Your task to perform on an android device: Open wifi settings Image 0: 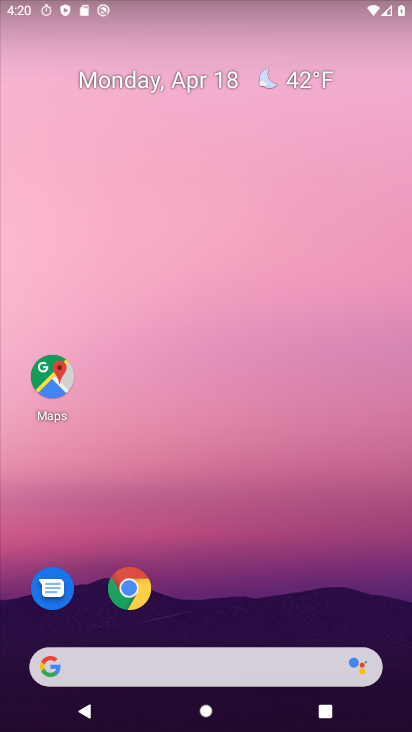
Step 0: drag from (318, 5) to (351, 537)
Your task to perform on an android device: Open wifi settings Image 1: 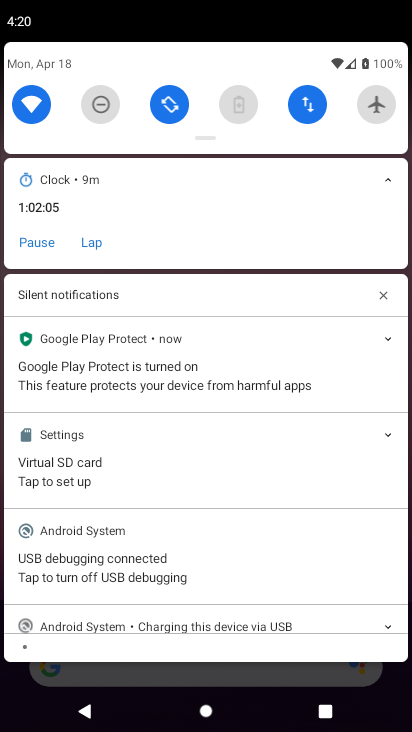
Step 1: click (33, 113)
Your task to perform on an android device: Open wifi settings Image 2: 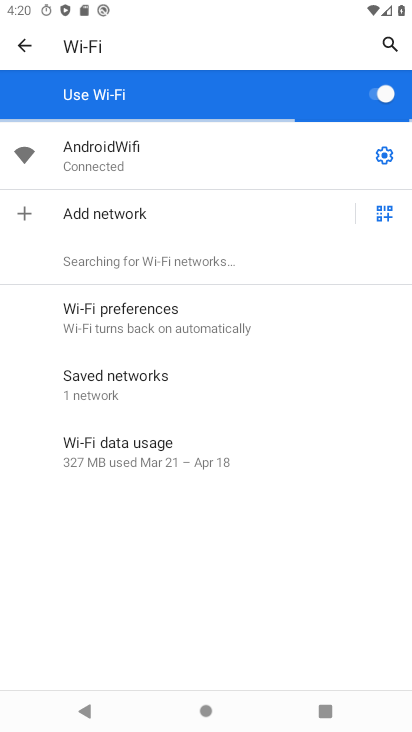
Step 2: task complete